Your task to perform on an android device: Go to settings Image 0: 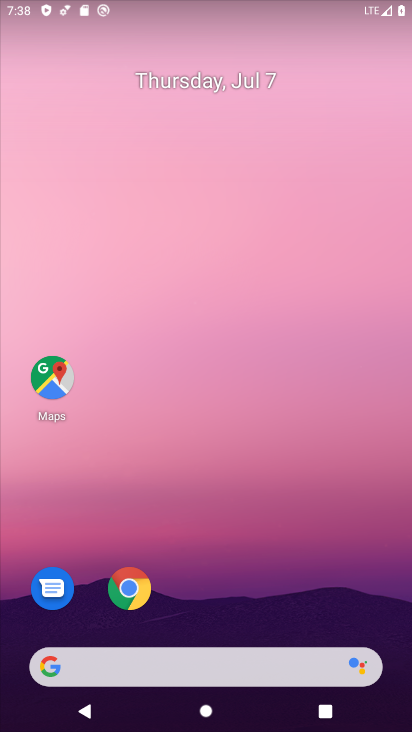
Step 0: click (257, 184)
Your task to perform on an android device: Go to settings Image 1: 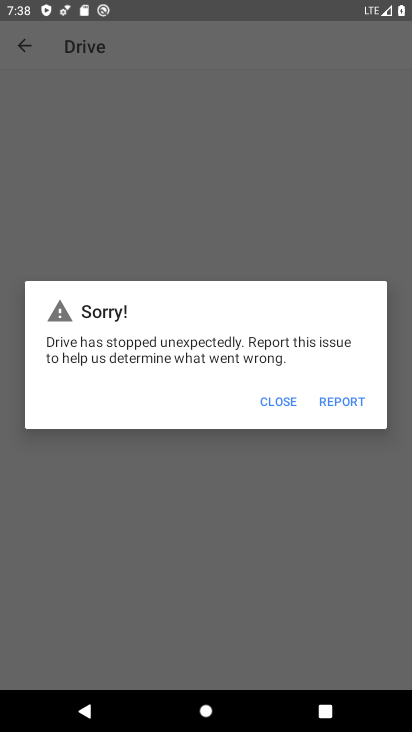
Step 1: press home button
Your task to perform on an android device: Go to settings Image 2: 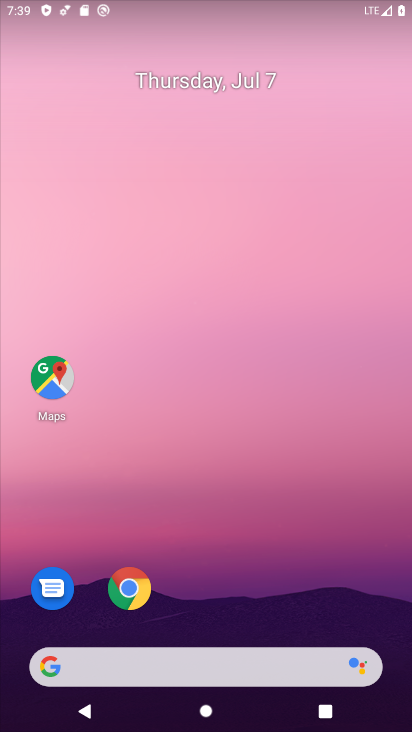
Step 2: drag from (252, 605) to (266, 171)
Your task to perform on an android device: Go to settings Image 3: 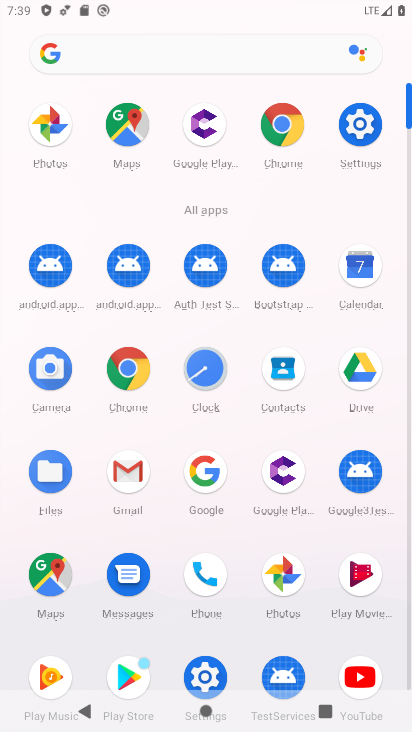
Step 3: click (346, 118)
Your task to perform on an android device: Go to settings Image 4: 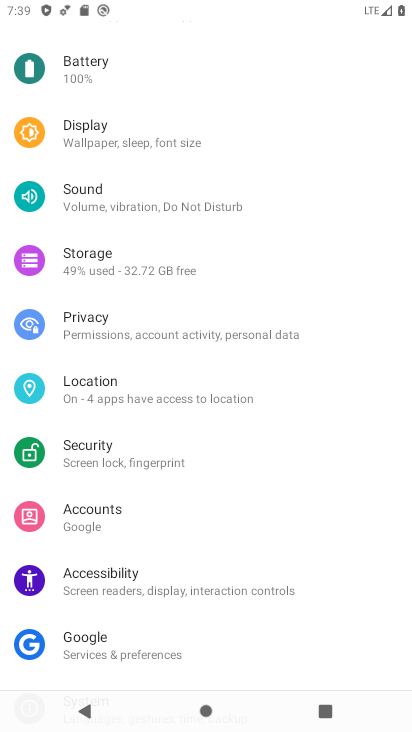
Step 4: task complete